Your task to perform on an android device: Go to Reddit.com Image 0: 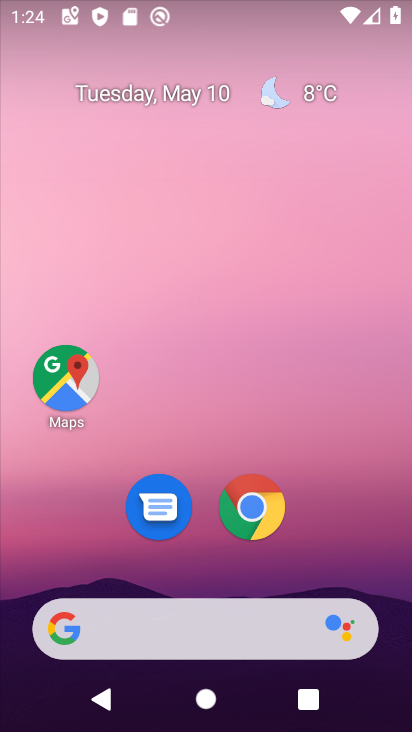
Step 0: drag from (288, 651) to (227, 225)
Your task to perform on an android device: Go to Reddit.com Image 1: 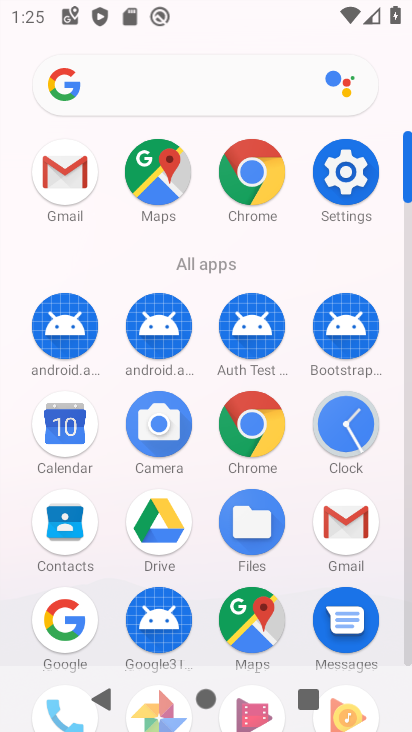
Step 1: click (257, 186)
Your task to perform on an android device: Go to Reddit.com Image 2: 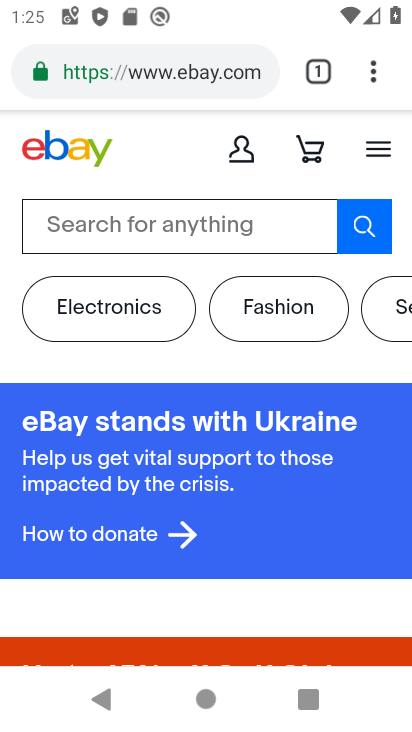
Step 2: click (315, 71)
Your task to perform on an android device: Go to Reddit.com Image 3: 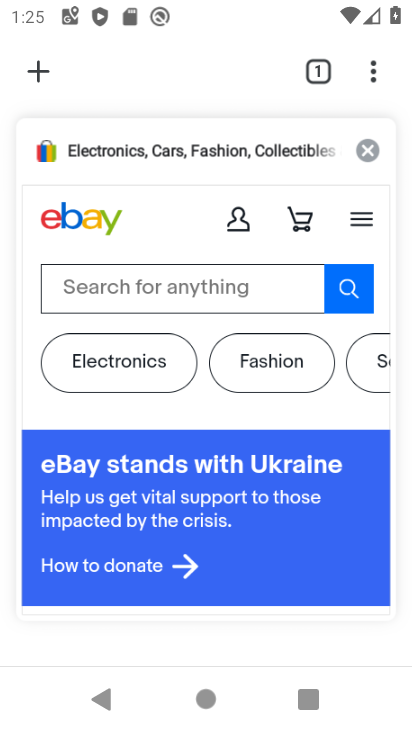
Step 3: click (31, 71)
Your task to perform on an android device: Go to Reddit.com Image 4: 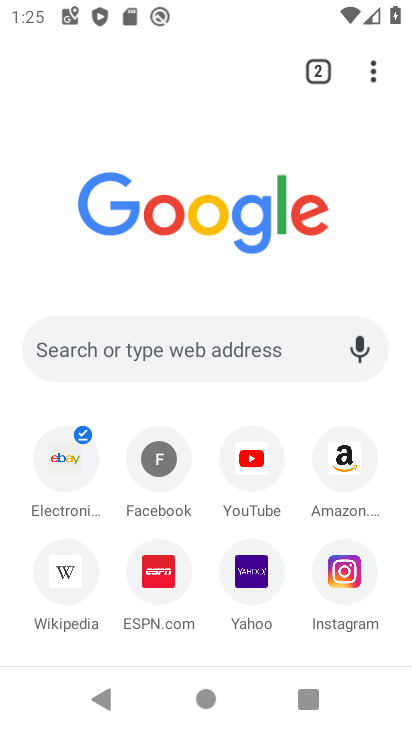
Step 4: click (151, 348)
Your task to perform on an android device: Go to Reddit.com Image 5: 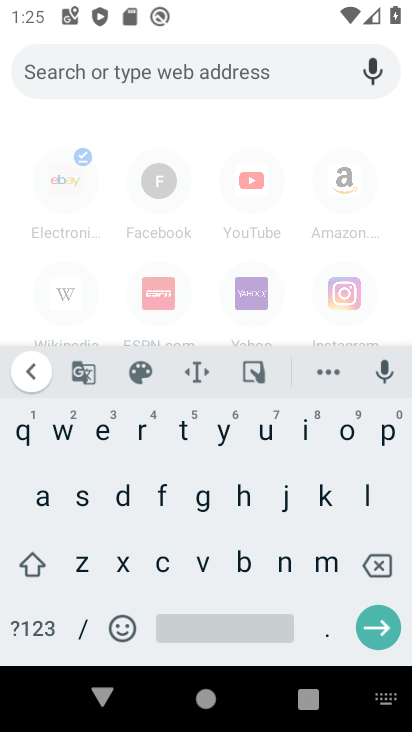
Step 5: click (137, 432)
Your task to perform on an android device: Go to Reddit.com Image 6: 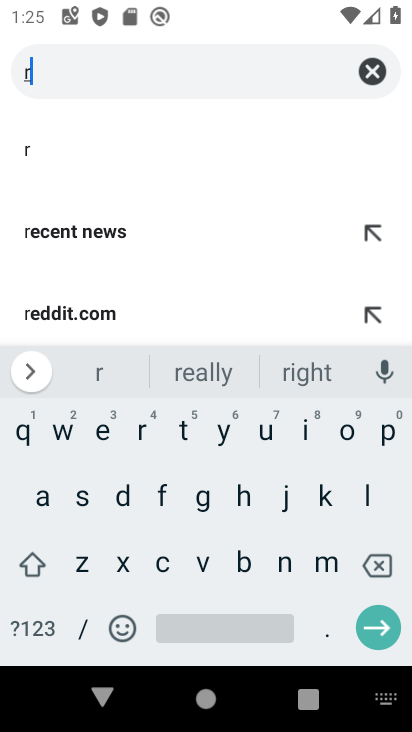
Step 6: click (99, 318)
Your task to perform on an android device: Go to Reddit.com Image 7: 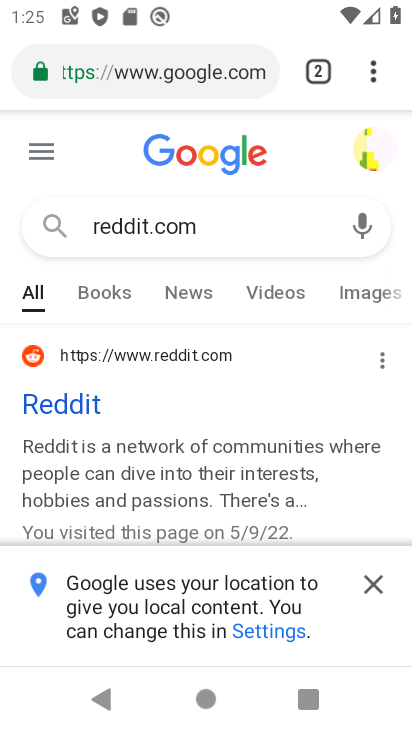
Step 7: click (68, 397)
Your task to perform on an android device: Go to Reddit.com Image 8: 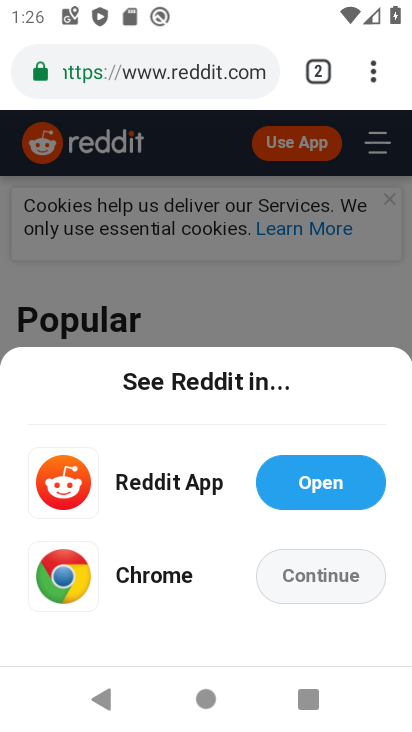
Step 8: click (342, 571)
Your task to perform on an android device: Go to Reddit.com Image 9: 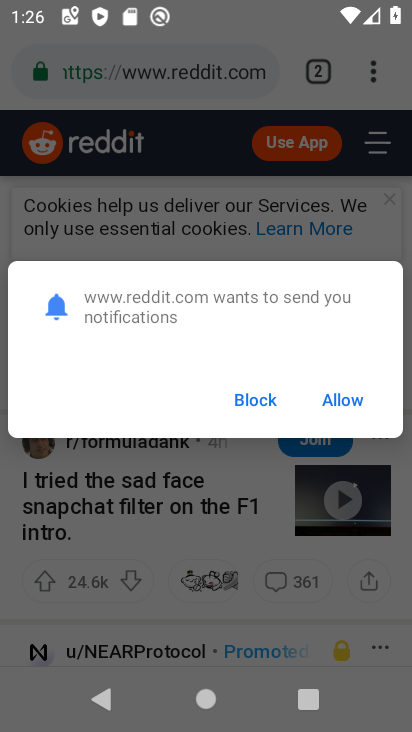
Step 9: click (258, 392)
Your task to perform on an android device: Go to Reddit.com Image 10: 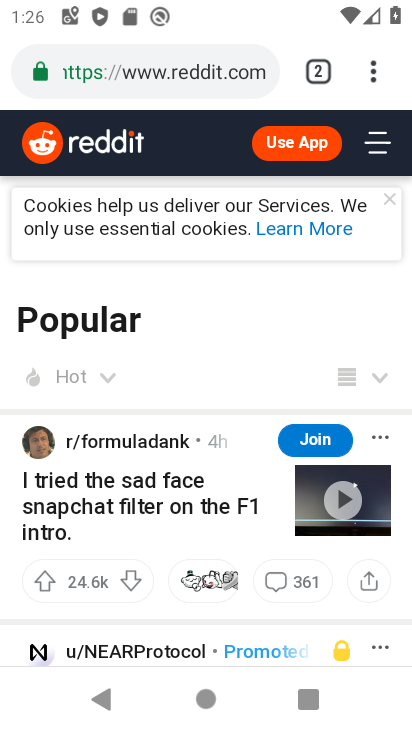
Step 10: task complete